Your task to perform on an android device: check out phone information Image 0: 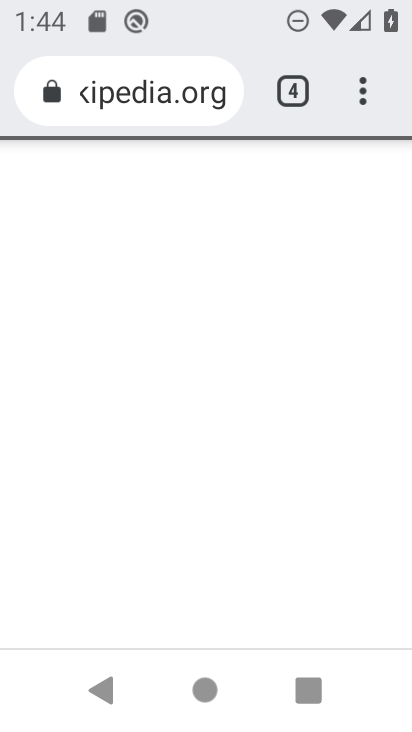
Step 0: press home button
Your task to perform on an android device: check out phone information Image 1: 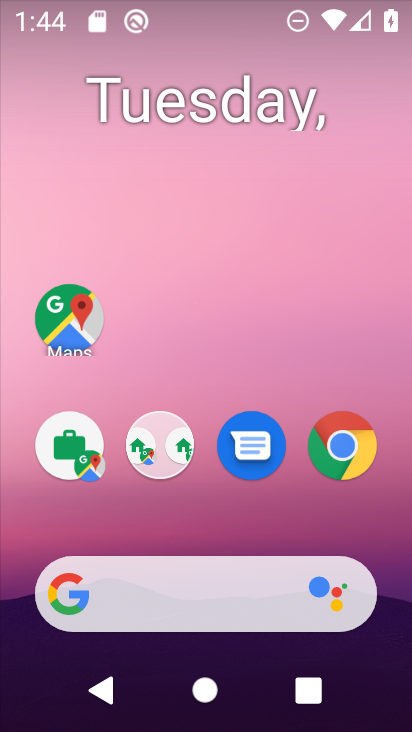
Step 1: drag from (293, 317) to (314, 106)
Your task to perform on an android device: check out phone information Image 2: 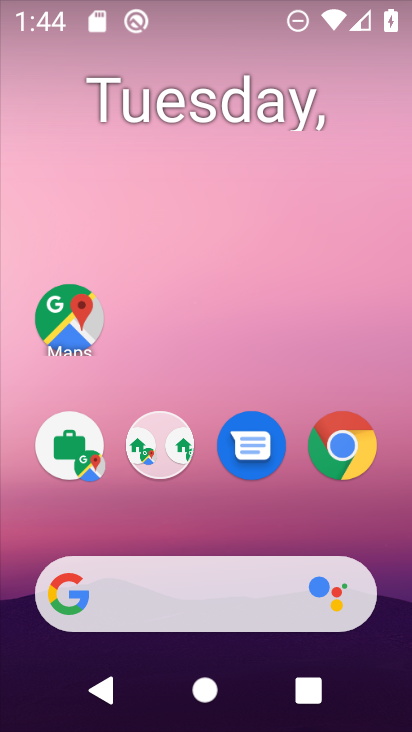
Step 2: drag from (252, 265) to (263, 163)
Your task to perform on an android device: check out phone information Image 3: 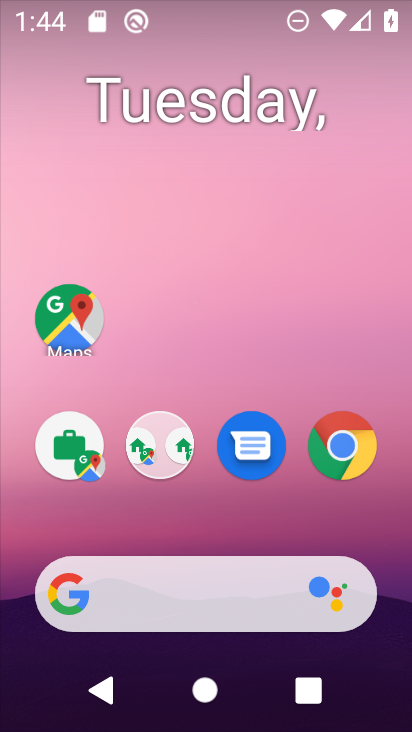
Step 3: drag from (195, 487) to (212, 96)
Your task to perform on an android device: check out phone information Image 4: 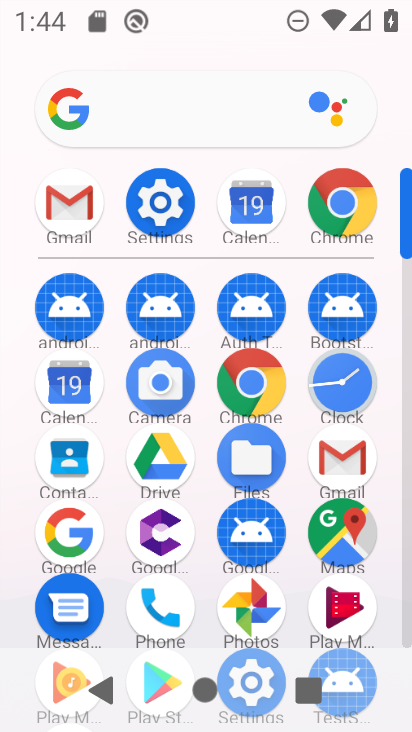
Step 4: click (161, 215)
Your task to perform on an android device: check out phone information Image 5: 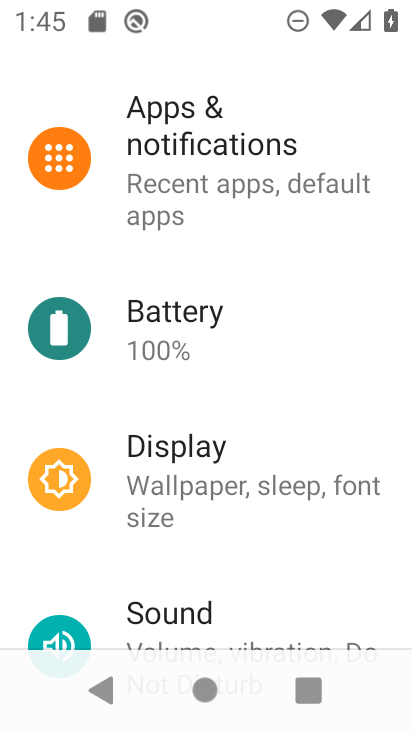
Step 5: drag from (247, 549) to (303, 105)
Your task to perform on an android device: check out phone information Image 6: 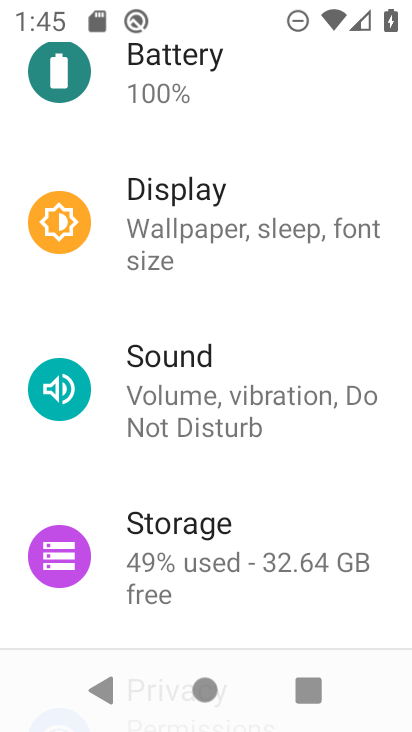
Step 6: drag from (279, 488) to (307, 62)
Your task to perform on an android device: check out phone information Image 7: 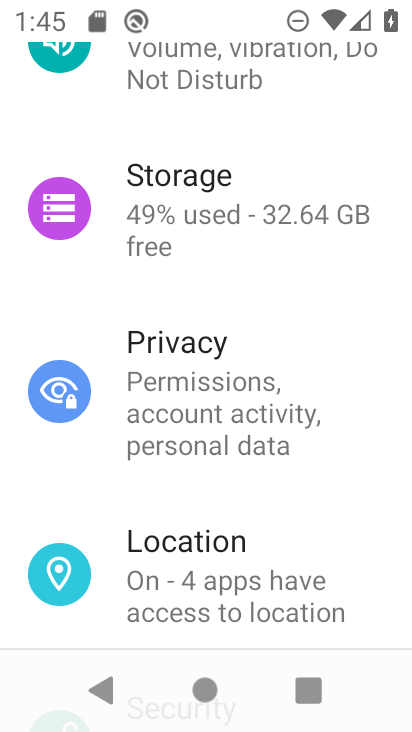
Step 7: drag from (286, 487) to (274, 103)
Your task to perform on an android device: check out phone information Image 8: 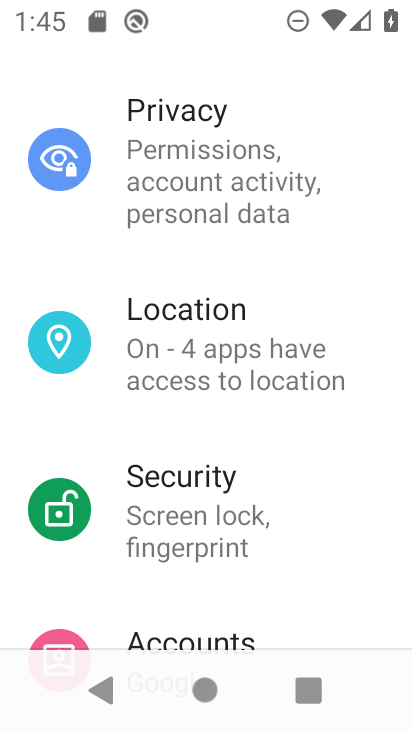
Step 8: drag from (275, 463) to (268, 133)
Your task to perform on an android device: check out phone information Image 9: 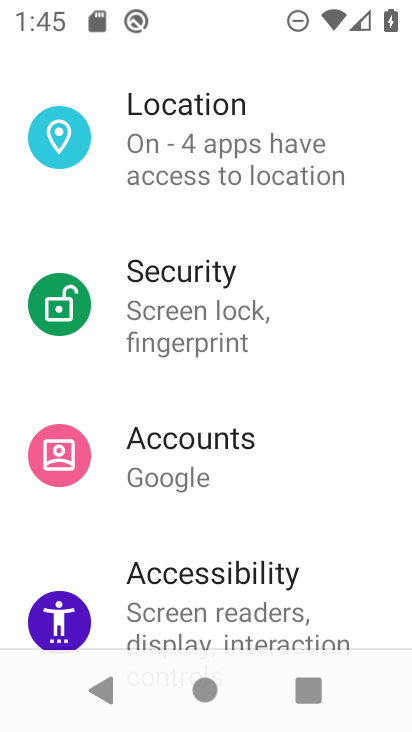
Step 9: drag from (269, 529) to (266, 143)
Your task to perform on an android device: check out phone information Image 10: 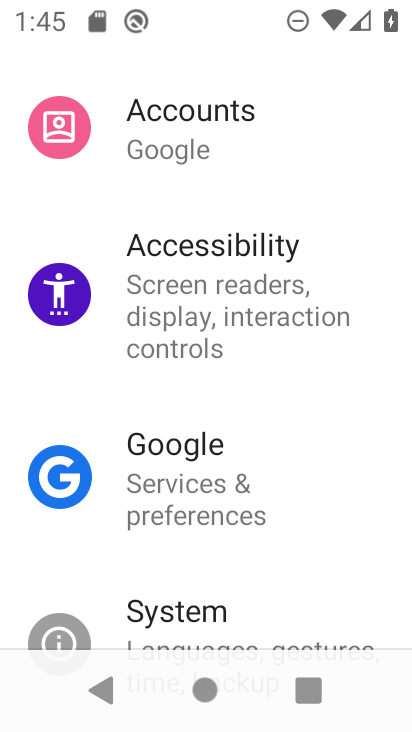
Step 10: drag from (238, 507) to (268, 94)
Your task to perform on an android device: check out phone information Image 11: 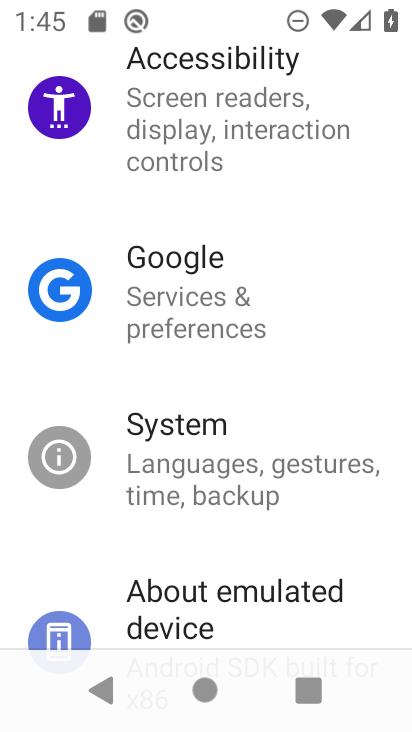
Step 11: drag from (241, 553) to (259, 142)
Your task to perform on an android device: check out phone information Image 12: 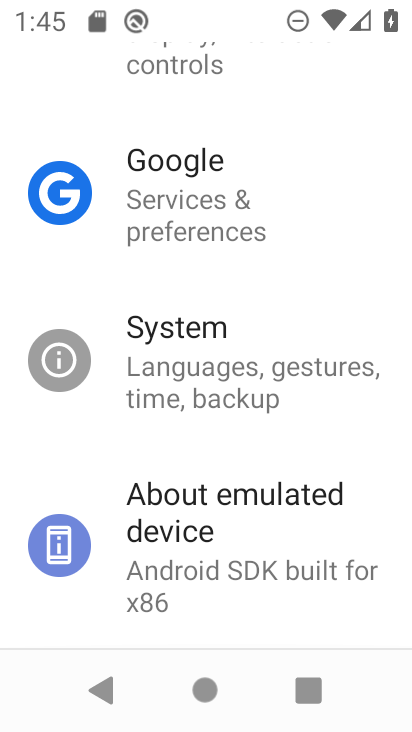
Step 12: click (250, 535)
Your task to perform on an android device: check out phone information Image 13: 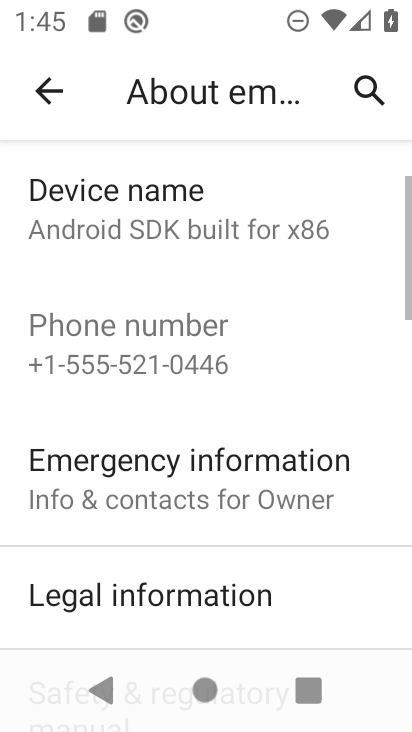
Step 13: task complete